Your task to perform on an android device: Go to sound settings Image 0: 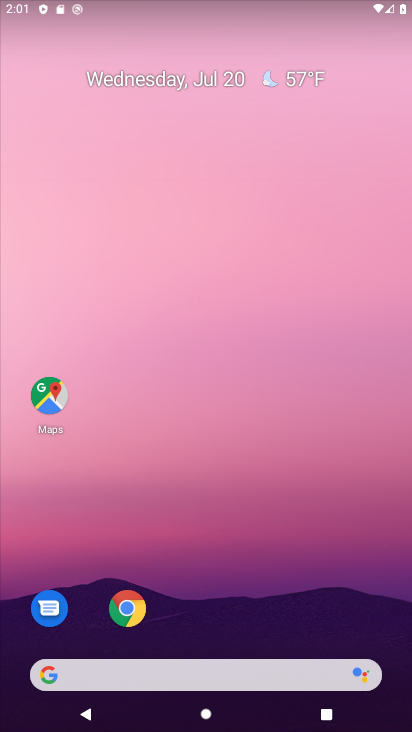
Step 0: press home button
Your task to perform on an android device: Go to sound settings Image 1: 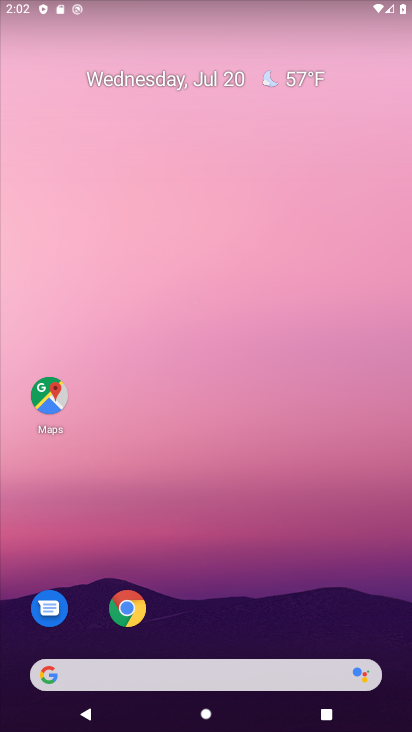
Step 1: drag from (227, 595) to (64, 12)
Your task to perform on an android device: Go to sound settings Image 2: 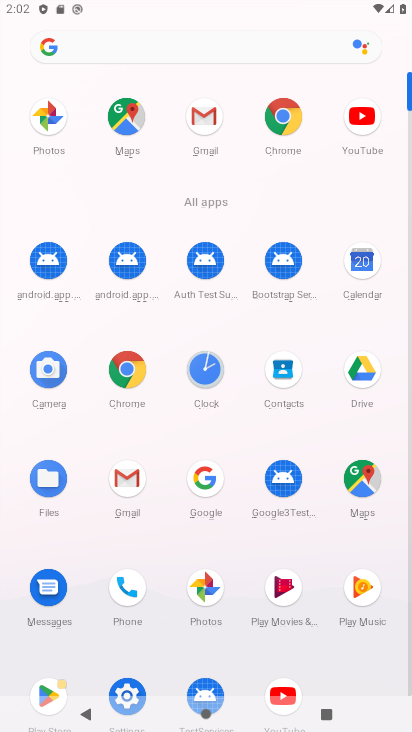
Step 2: drag from (161, 542) to (148, 180)
Your task to perform on an android device: Go to sound settings Image 3: 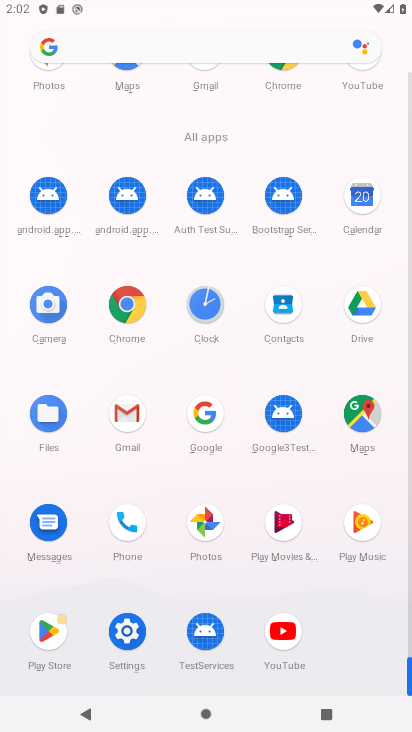
Step 3: click (122, 618)
Your task to perform on an android device: Go to sound settings Image 4: 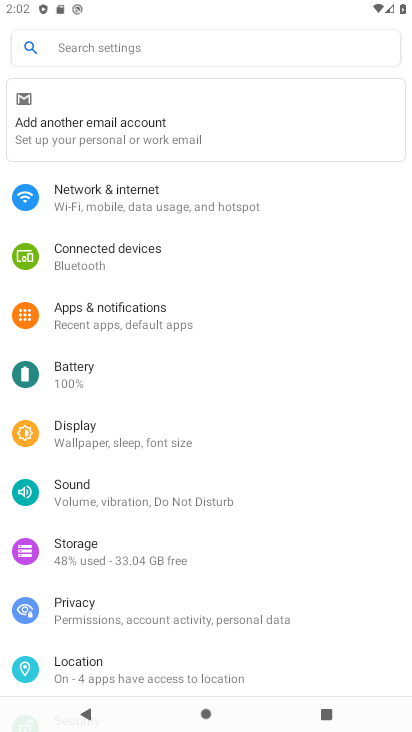
Step 4: click (58, 498)
Your task to perform on an android device: Go to sound settings Image 5: 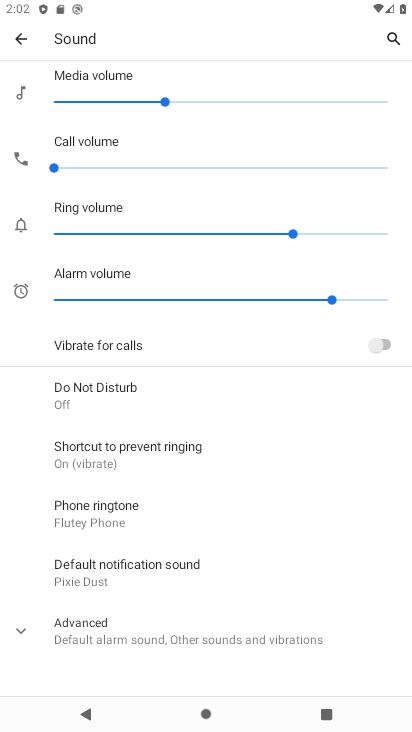
Step 5: click (25, 632)
Your task to perform on an android device: Go to sound settings Image 6: 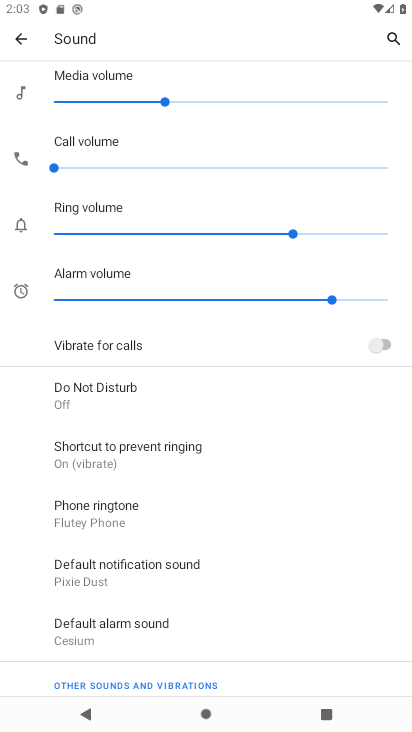
Step 6: task complete